Your task to perform on an android device: Go to Yahoo.com Image 0: 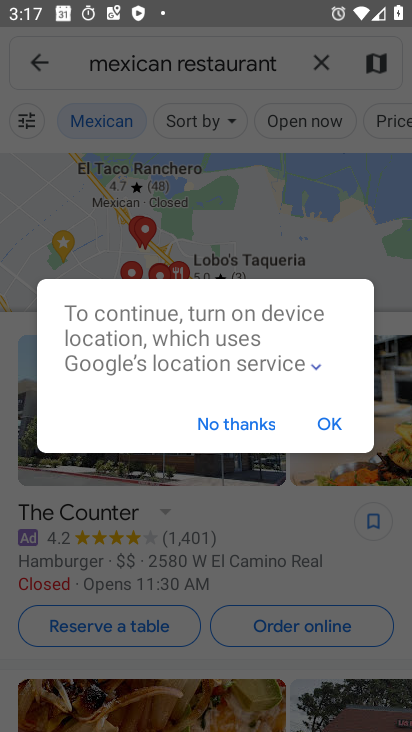
Step 0: press home button
Your task to perform on an android device: Go to Yahoo.com Image 1: 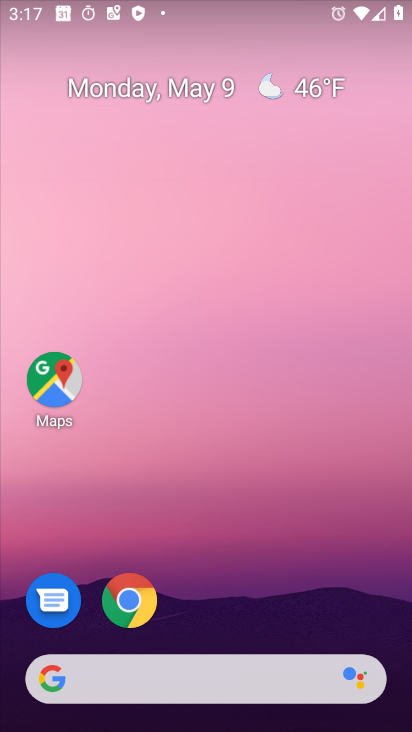
Step 1: click (137, 598)
Your task to perform on an android device: Go to Yahoo.com Image 2: 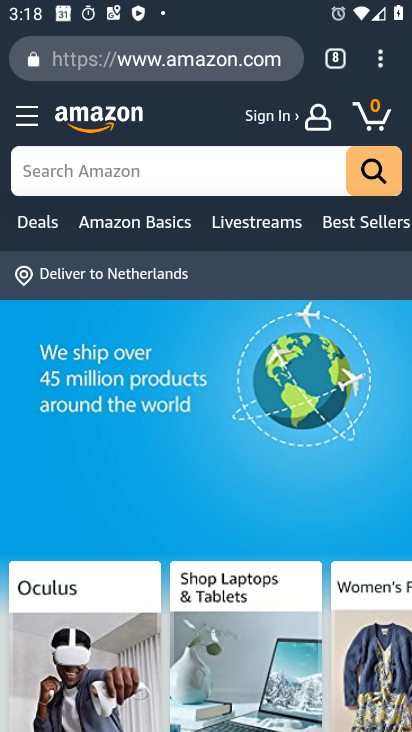
Step 2: click (332, 52)
Your task to perform on an android device: Go to Yahoo.com Image 3: 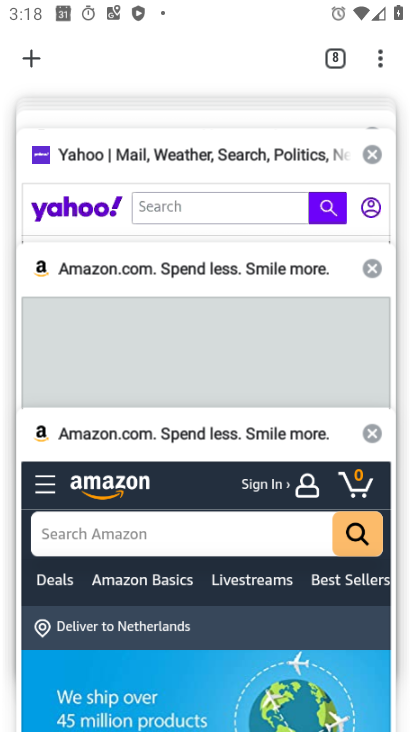
Step 3: click (65, 221)
Your task to perform on an android device: Go to Yahoo.com Image 4: 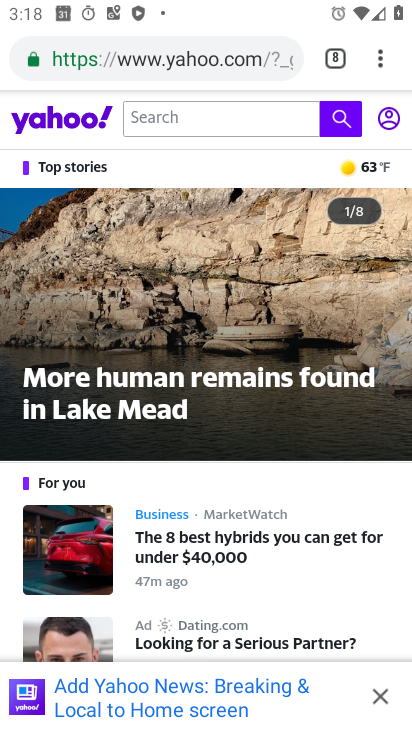
Step 4: task complete